Your task to perform on an android device: open the mobile data screen to see how much data has been used Image 0: 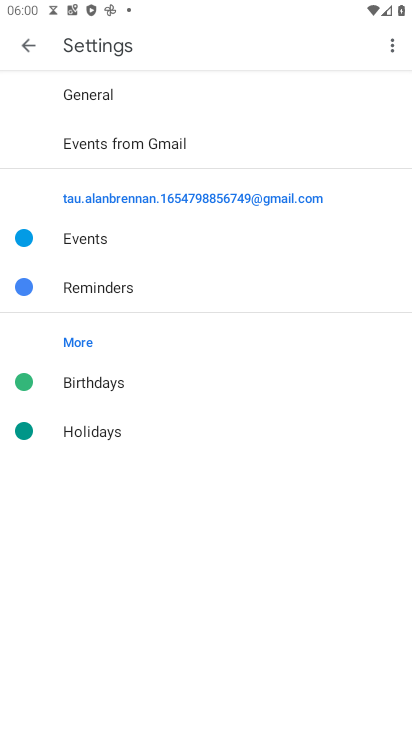
Step 0: press home button
Your task to perform on an android device: open the mobile data screen to see how much data has been used Image 1: 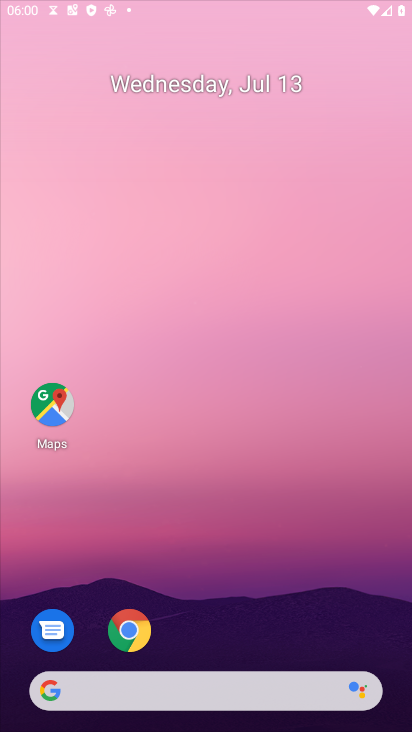
Step 1: drag from (230, 643) to (325, 5)
Your task to perform on an android device: open the mobile data screen to see how much data has been used Image 2: 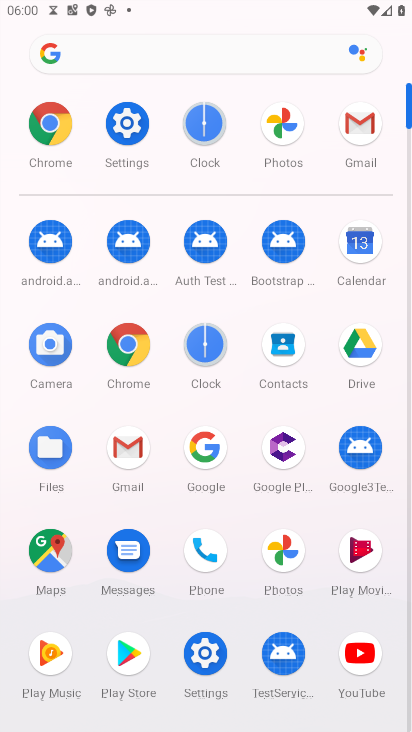
Step 2: click (135, 124)
Your task to perform on an android device: open the mobile data screen to see how much data has been used Image 3: 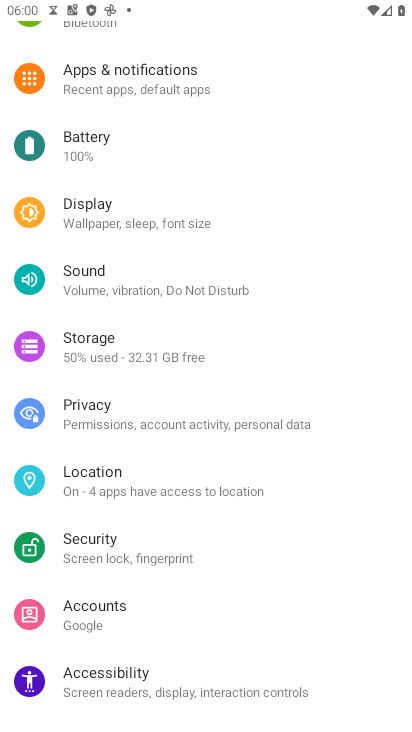
Step 3: drag from (169, 242) to (206, 643)
Your task to perform on an android device: open the mobile data screen to see how much data has been used Image 4: 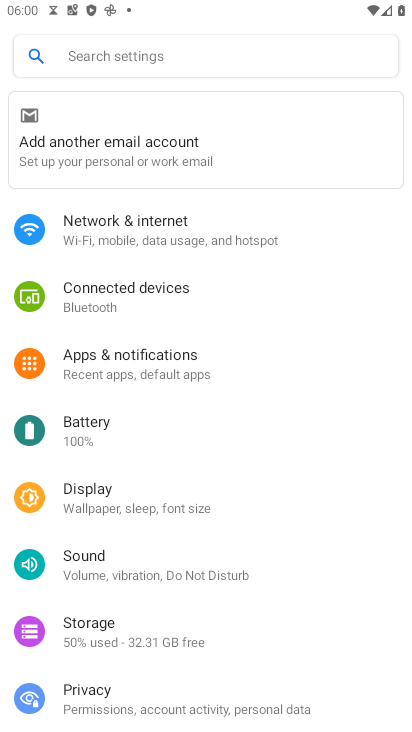
Step 4: drag from (199, 704) to (202, 257)
Your task to perform on an android device: open the mobile data screen to see how much data has been used Image 5: 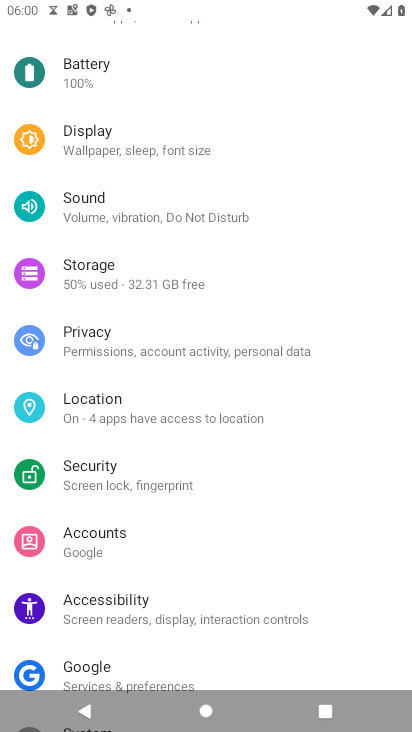
Step 5: drag from (162, 230) to (187, 688)
Your task to perform on an android device: open the mobile data screen to see how much data has been used Image 6: 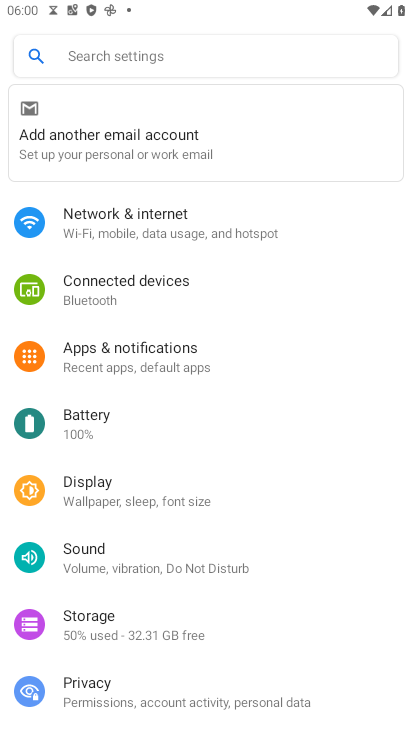
Step 6: click (201, 235)
Your task to perform on an android device: open the mobile data screen to see how much data has been used Image 7: 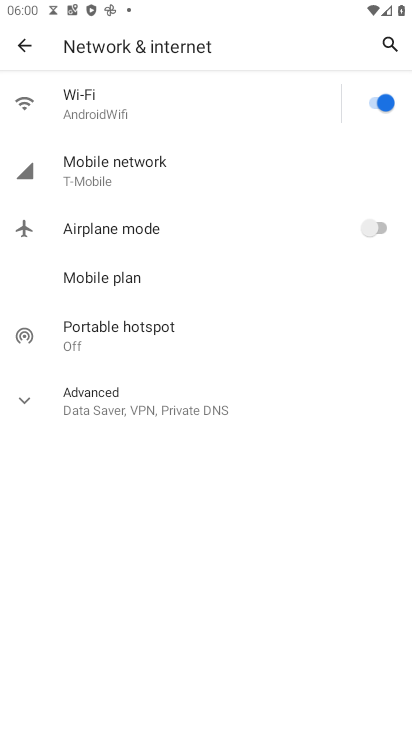
Step 7: click (127, 171)
Your task to perform on an android device: open the mobile data screen to see how much data has been used Image 8: 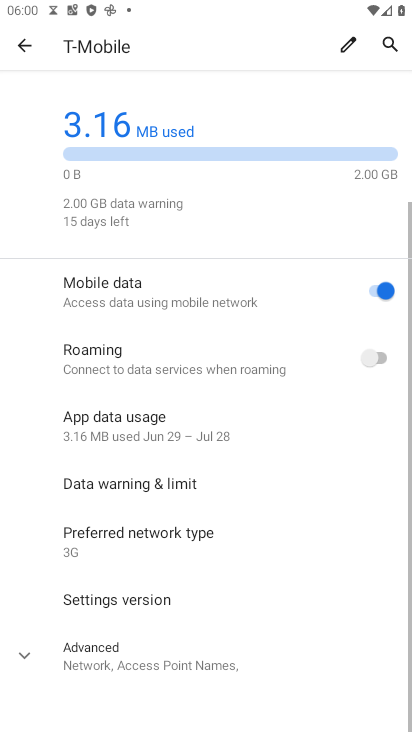
Step 8: task complete